Your task to perform on an android device: Check the weather Image 0: 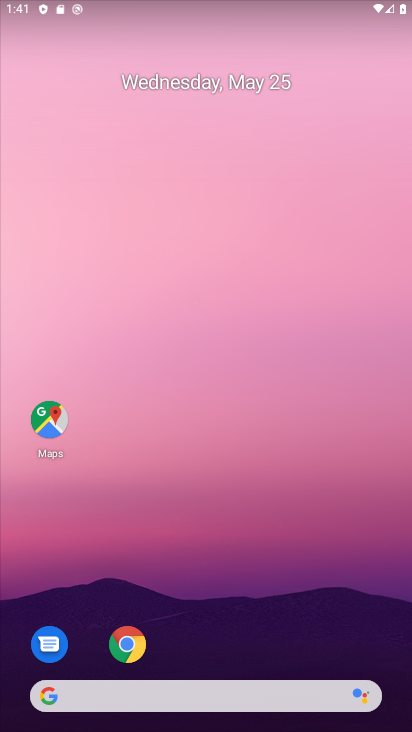
Step 0: click (287, 697)
Your task to perform on an android device: Check the weather Image 1: 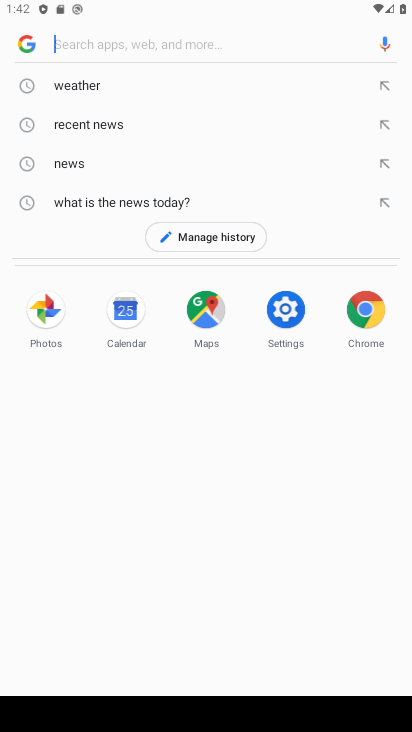
Step 1: click (124, 83)
Your task to perform on an android device: Check the weather Image 2: 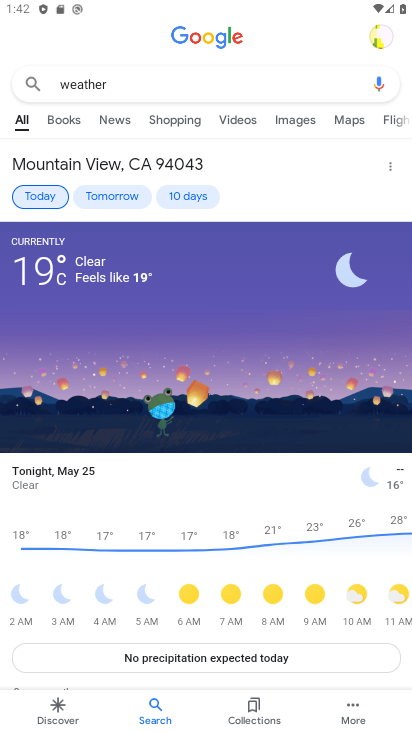
Step 2: task complete